Your task to perform on an android device: Check the weather Image 0: 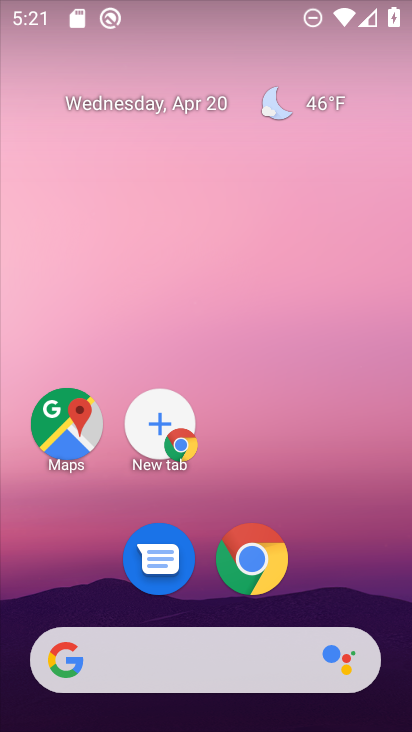
Step 0: drag from (314, 336) to (313, 187)
Your task to perform on an android device: Check the weather Image 1: 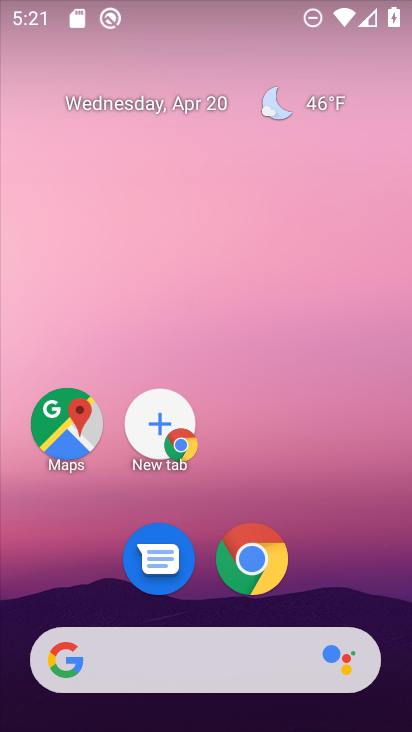
Step 1: click (167, 659)
Your task to perform on an android device: Check the weather Image 2: 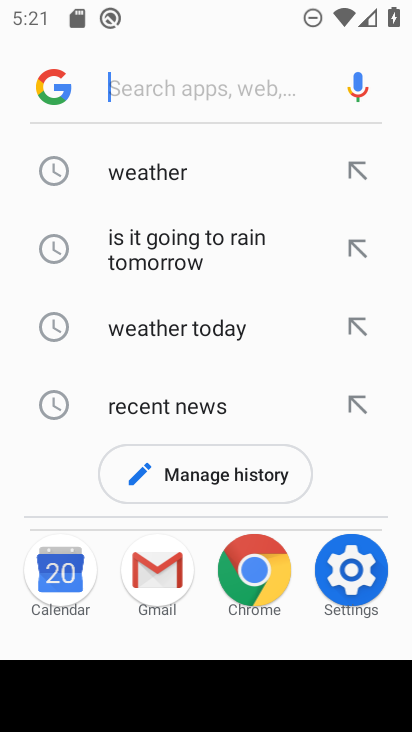
Step 2: click (170, 186)
Your task to perform on an android device: Check the weather Image 3: 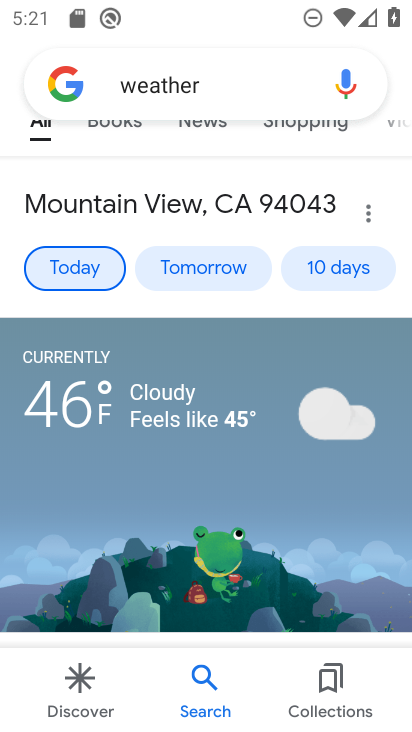
Step 3: task complete